Your task to perform on an android device: change the clock display to show seconds Image 0: 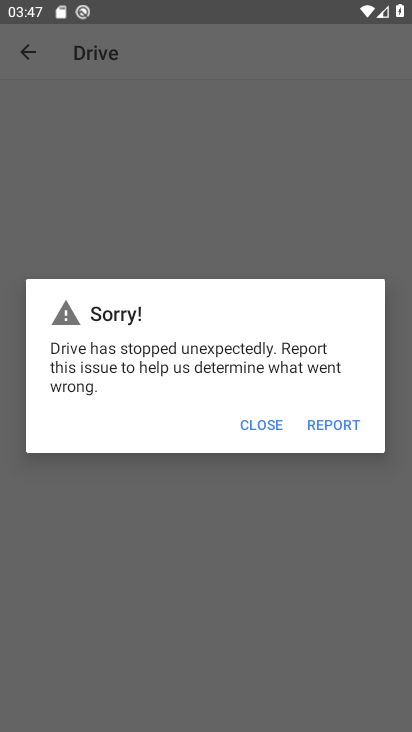
Step 0: press home button
Your task to perform on an android device: change the clock display to show seconds Image 1: 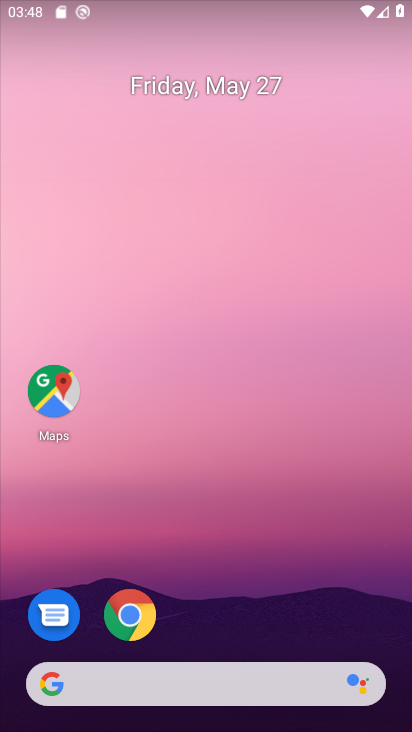
Step 1: drag from (111, 727) to (52, 69)
Your task to perform on an android device: change the clock display to show seconds Image 2: 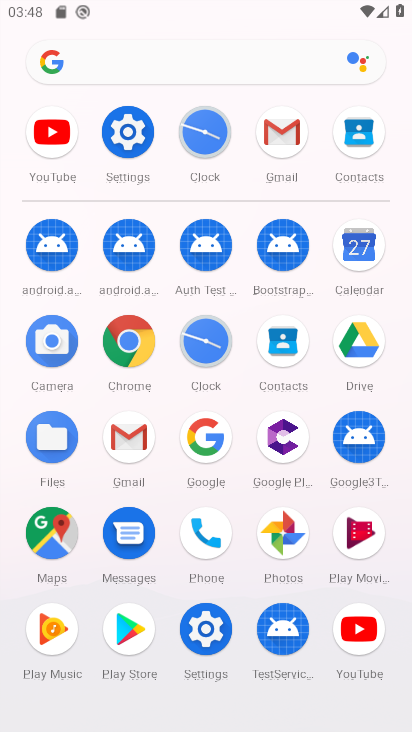
Step 2: click (209, 355)
Your task to perform on an android device: change the clock display to show seconds Image 3: 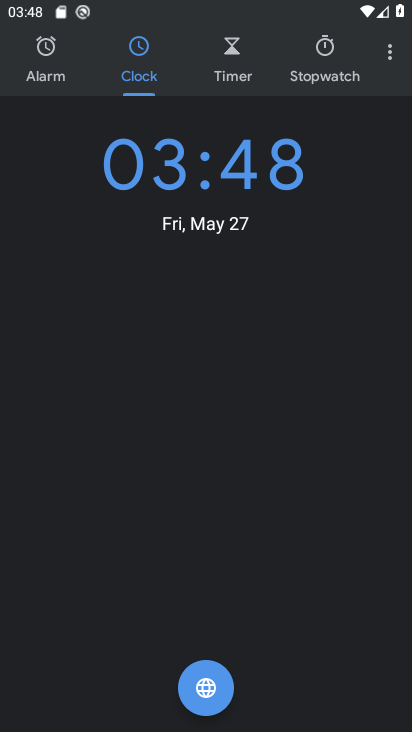
Step 3: click (388, 54)
Your task to perform on an android device: change the clock display to show seconds Image 4: 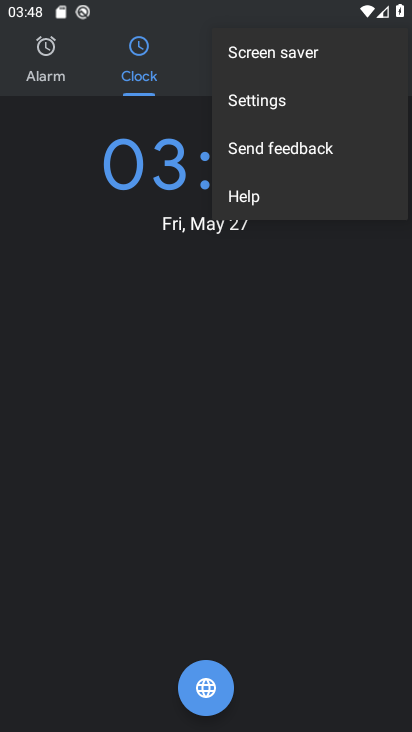
Step 4: click (264, 103)
Your task to perform on an android device: change the clock display to show seconds Image 5: 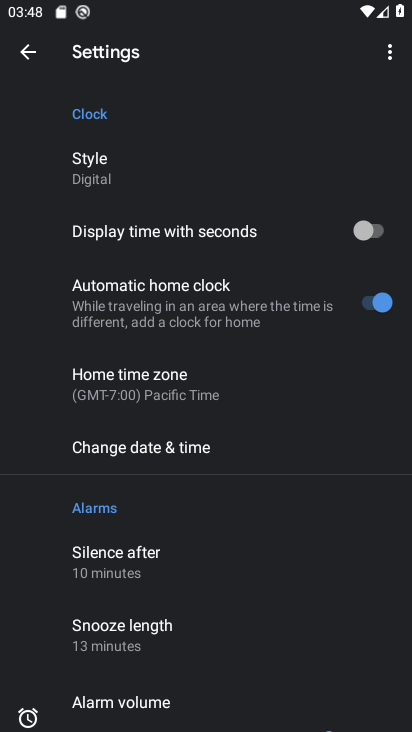
Step 5: click (373, 231)
Your task to perform on an android device: change the clock display to show seconds Image 6: 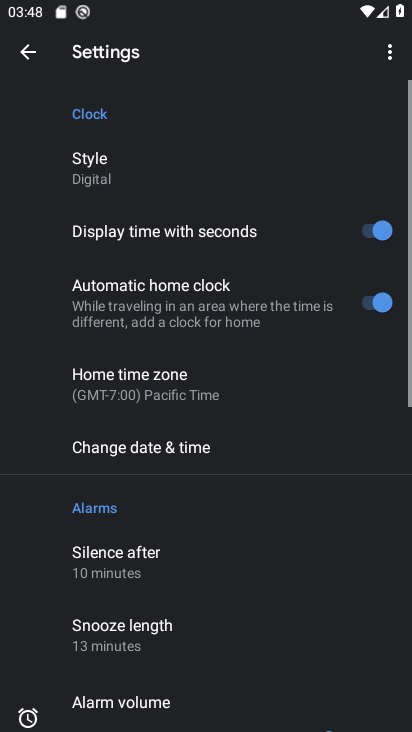
Step 6: task complete